Your task to perform on an android device: Open the phone app and click the voicemail tab. Image 0: 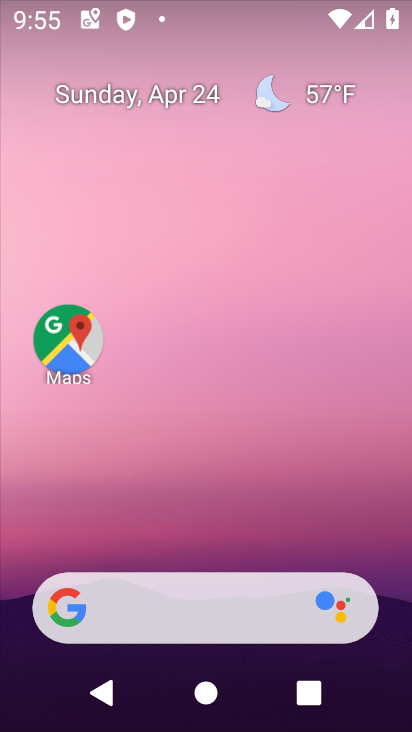
Step 0: drag from (220, 698) to (217, 150)
Your task to perform on an android device: Open the phone app and click the voicemail tab. Image 1: 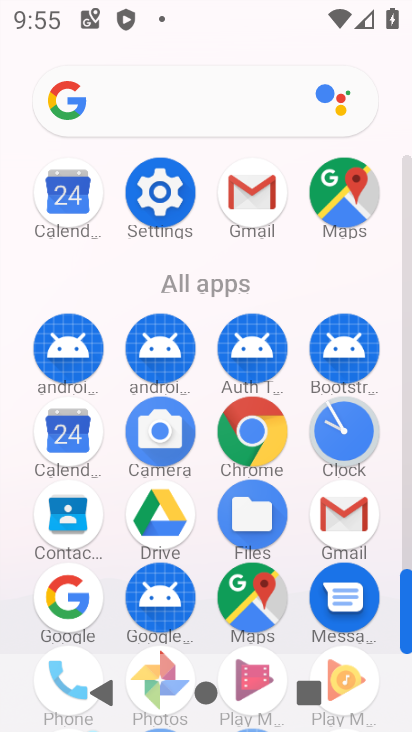
Step 1: drag from (201, 640) to (209, 235)
Your task to perform on an android device: Open the phone app and click the voicemail tab. Image 2: 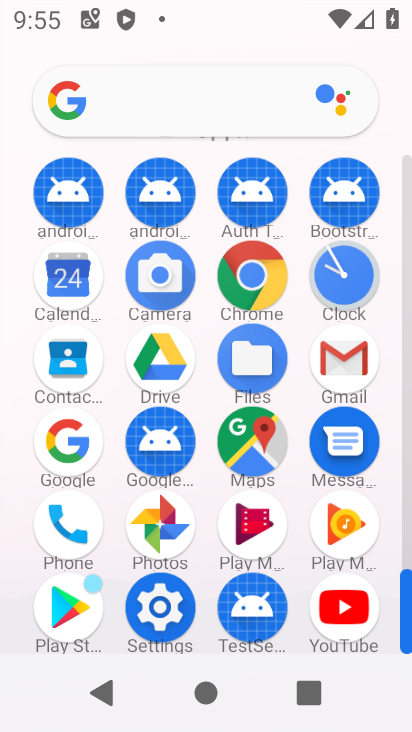
Step 2: click (66, 520)
Your task to perform on an android device: Open the phone app and click the voicemail tab. Image 3: 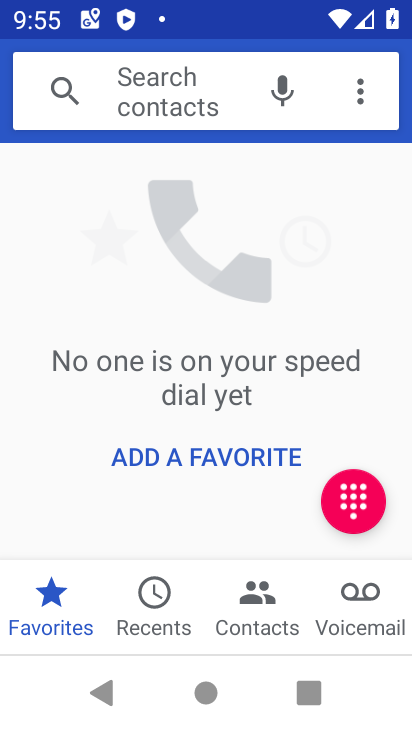
Step 3: click (369, 603)
Your task to perform on an android device: Open the phone app and click the voicemail tab. Image 4: 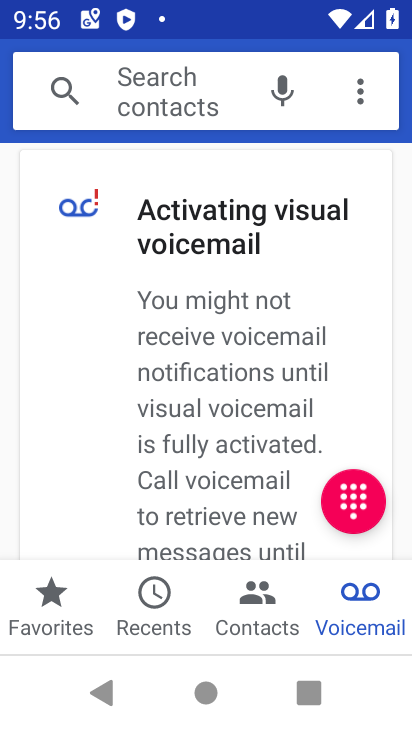
Step 4: task complete